Your task to perform on an android device: turn off javascript in the chrome app Image 0: 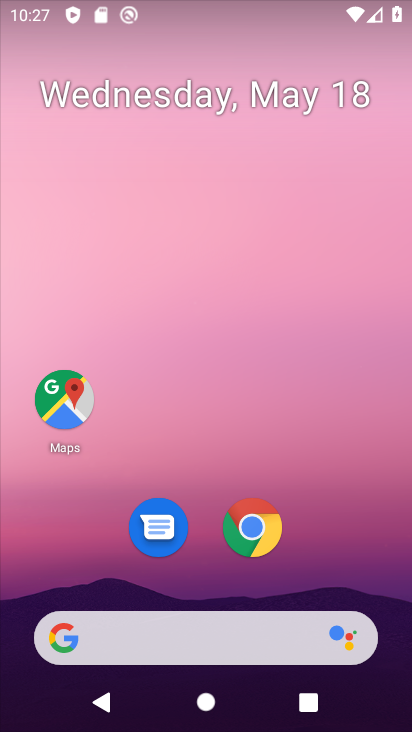
Step 0: click (253, 507)
Your task to perform on an android device: turn off javascript in the chrome app Image 1: 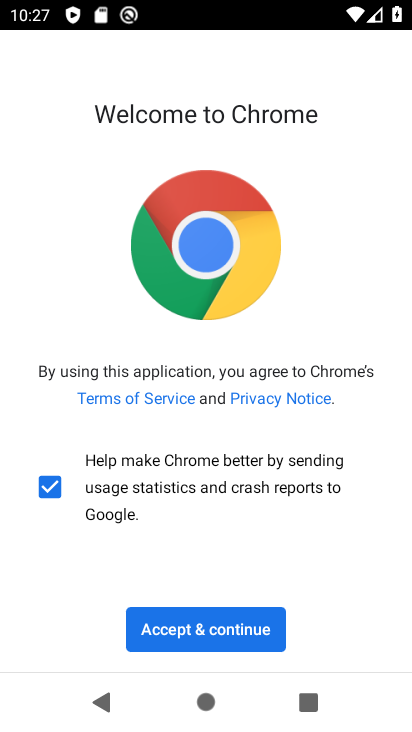
Step 1: click (225, 615)
Your task to perform on an android device: turn off javascript in the chrome app Image 2: 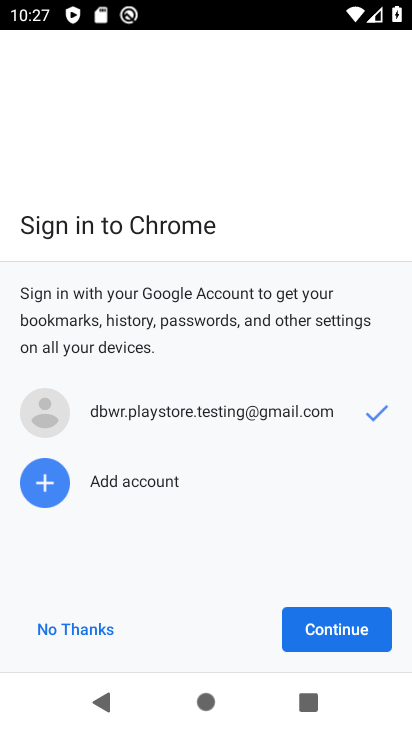
Step 2: click (332, 632)
Your task to perform on an android device: turn off javascript in the chrome app Image 3: 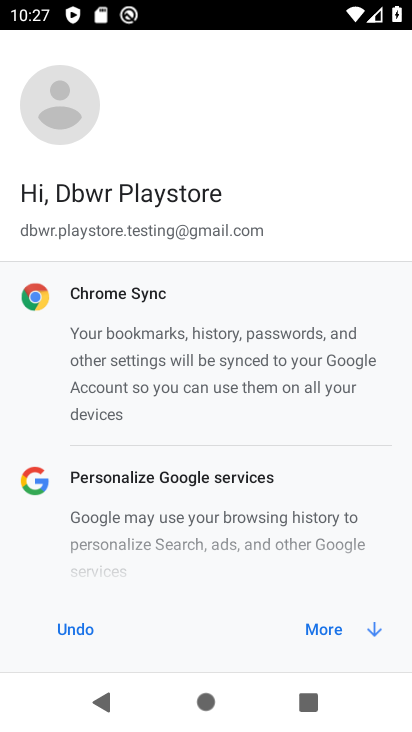
Step 3: click (332, 632)
Your task to perform on an android device: turn off javascript in the chrome app Image 4: 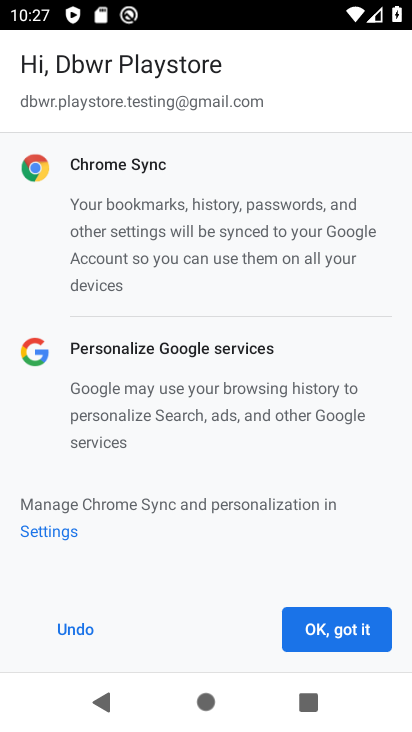
Step 4: click (332, 632)
Your task to perform on an android device: turn off javascript in the chrome app Image 5: 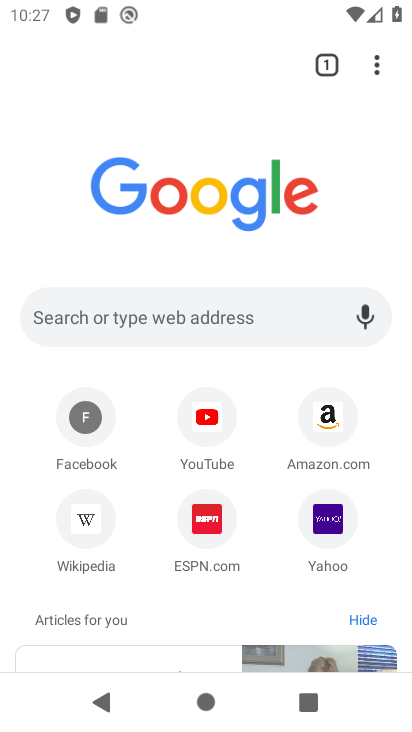
Step 5: click (377, 74)
Your task to perform on an android device: turn off javascript in the chrome app Image 6: 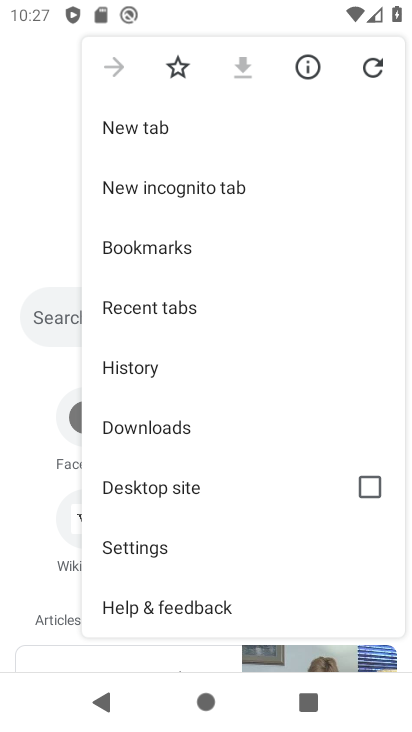
Step 6: click (186, 549)
Your task to perform on an android device: turn off javascript in the chrome app Image 7: 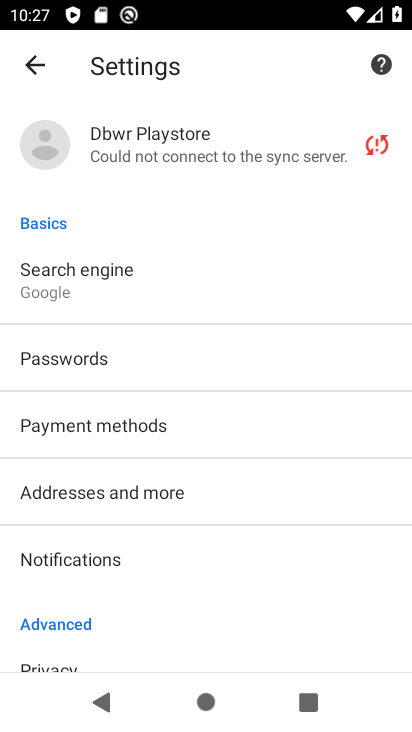
Step 7: drag from (230, 615) to (222, 194)
Your task to perform on an android device: turn off javascript in the chrome app Image 8: 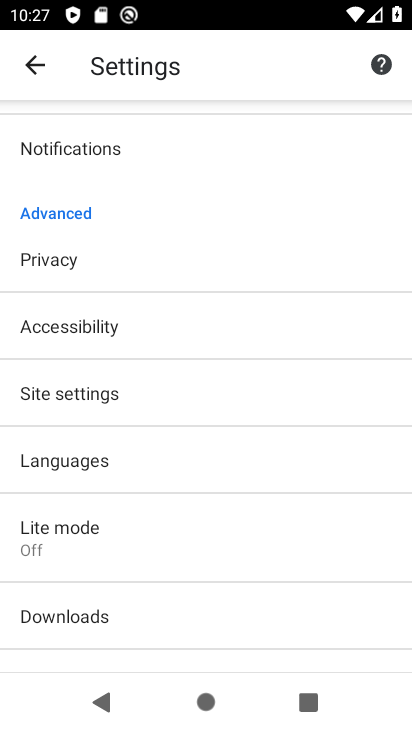
Step 8: click (204, 392)
Your task to perform on an android device: turn off javascript in the chrome app Image 9: 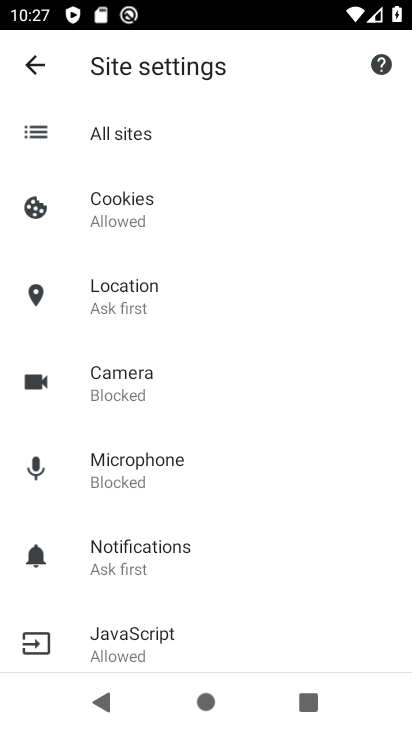
Step 9: click (194, 662)
Your task to perform on an android device: turn off javascript in the chrome app Image 10: 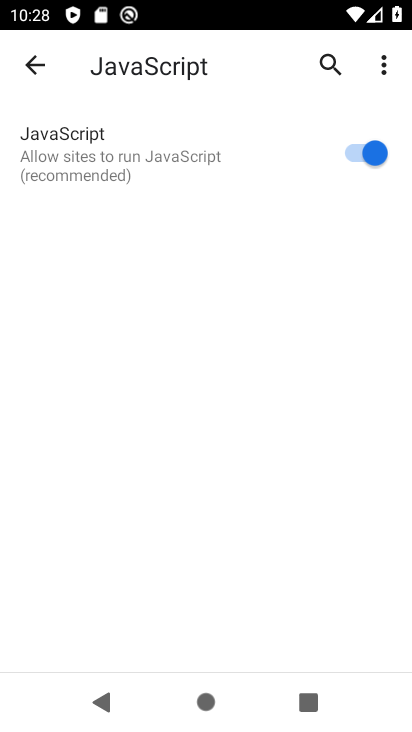
Step 10: click (357, 160)
Your task to perform on an android device: turn off javascript in the chrome app Image 11: 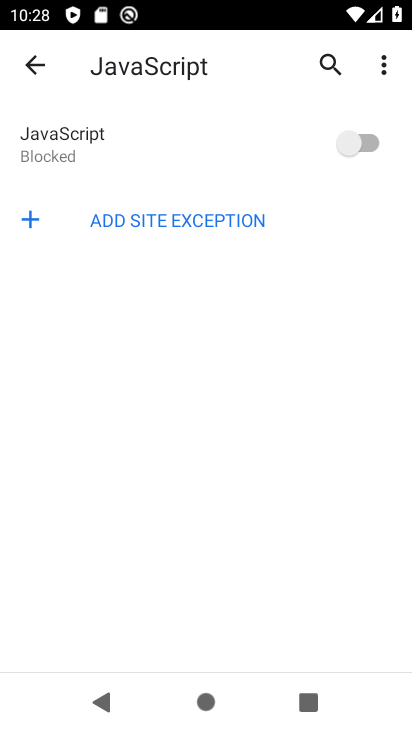
Step 11: task complete